Your task to perform on an android device: Open Wikipedia Image 0: 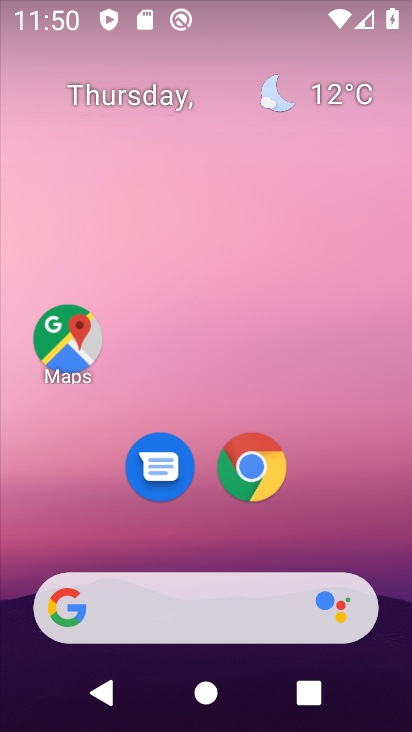
Step 0: drag from (394, 468) to (397, 191)
Your task to perform on an android device: Open Wikipedia Image 1: 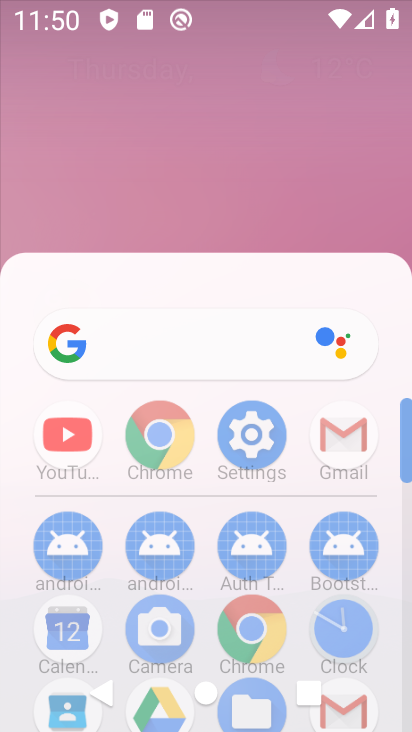
Step 1: drag from (324, 420) to (410, 30)
Your task to perform on an android device: Open Wikipedia Image 2: 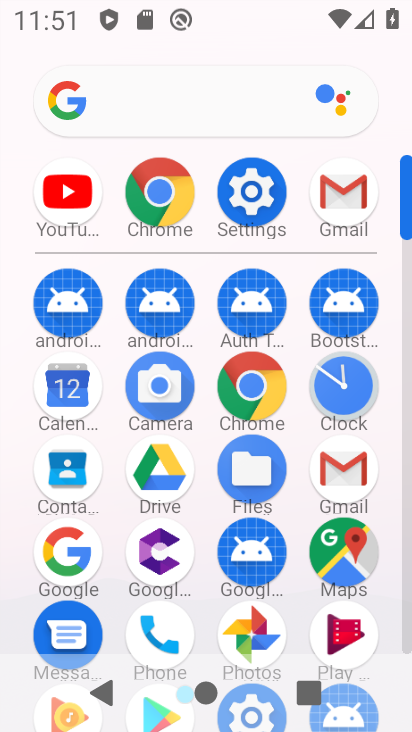
Step 2: click (167, 192)
Your task to perform on an android device: Open Wikipedia Image 3: 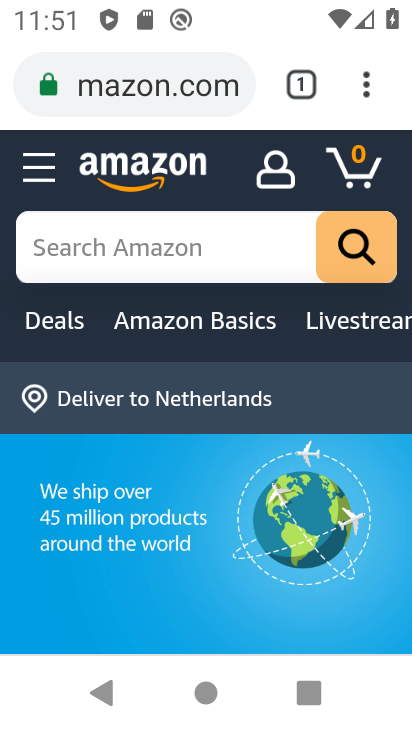
Step 3: click (108, 110)
Your task to perform on an android device: Open Wikipedia Image 4: 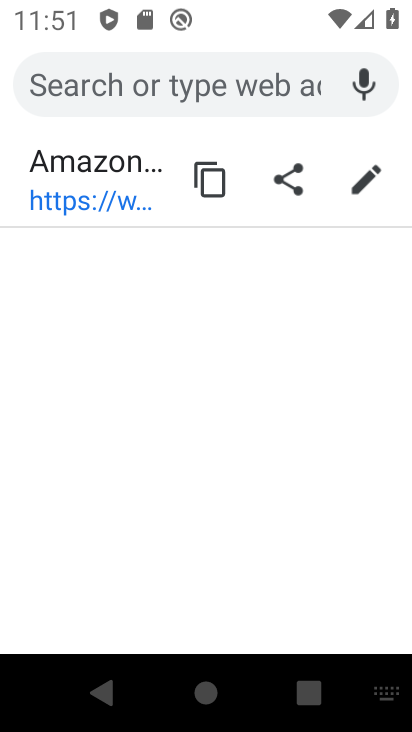
Step 4: type "wikipedia"
Your task to perform on an android device: Open Wikipedia Image 5: 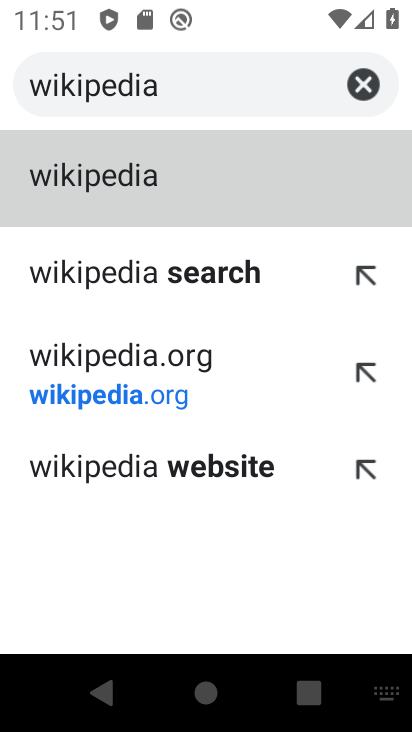
Step 5: click (186, 189)
Your task to perform on an android device: Open Wikipedia Image 6: 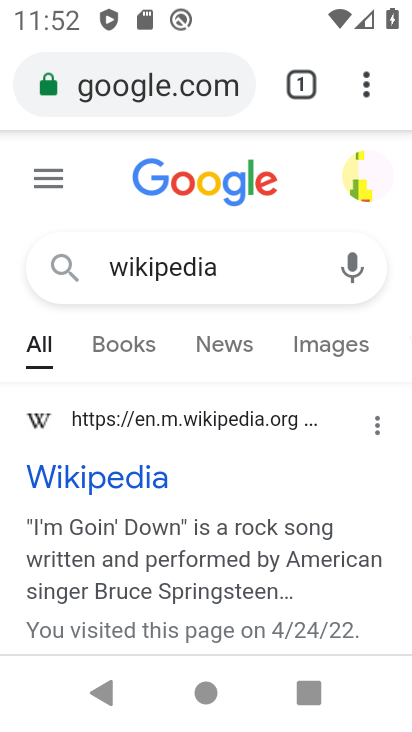
Step 6: click (77, 482)
Your task to perform on an android device: Open Wikipedia Image 7: 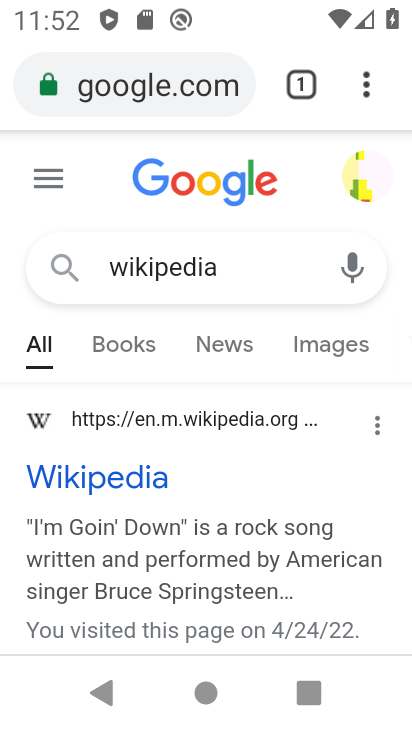
Step 7: click (99, 473)
Your task to perform on an android device: Open Wikipedia Image 8: 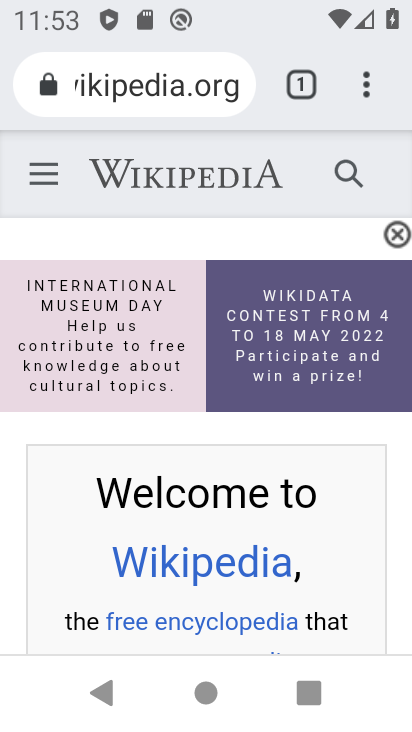
Step 8: task complete